Your task to perform on an android device: turn on location history Image 0: 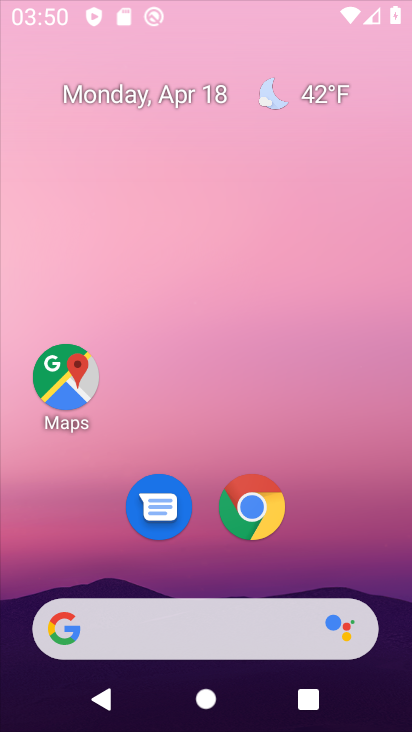
Step 0: click (264, 519)
Your task to perform on an android device: turn on location history Image 1: 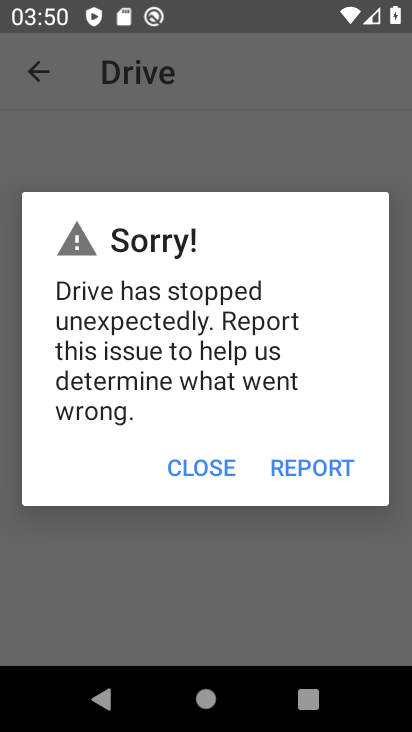
Step 1: press home button
Your task to perform on an android device: turn on location history Image 2: 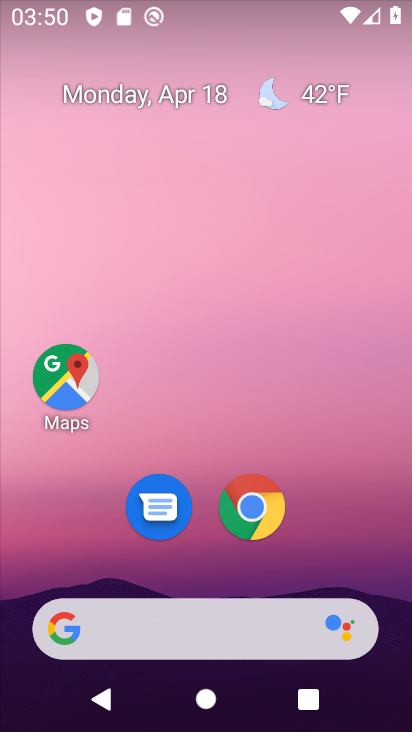
Step 2: drag from (188, 531) to (265, 168)
Your task to perform on an android device: turn on location history Image 3: 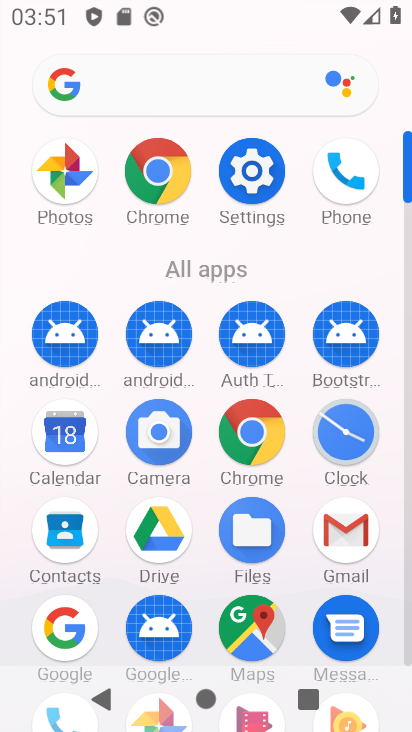
Step 3: drag from (210, 652) to (242, 343)
Your task to perform on an android device: turn on location history Image 4: 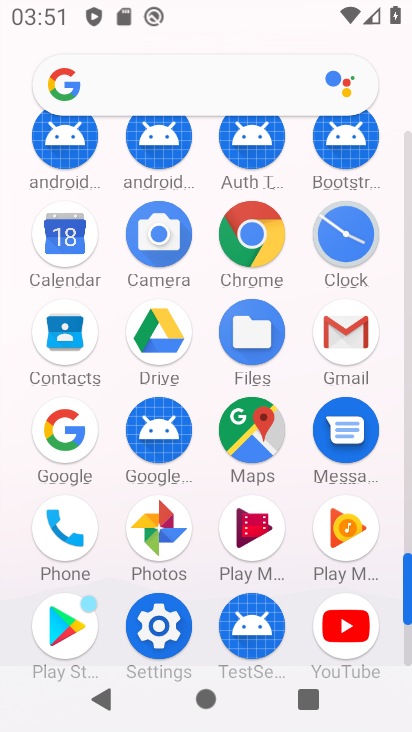
Step 4: drag from (192, 647) to (235, 332)
Your task to perform on an android device: turn on location history Image 5: 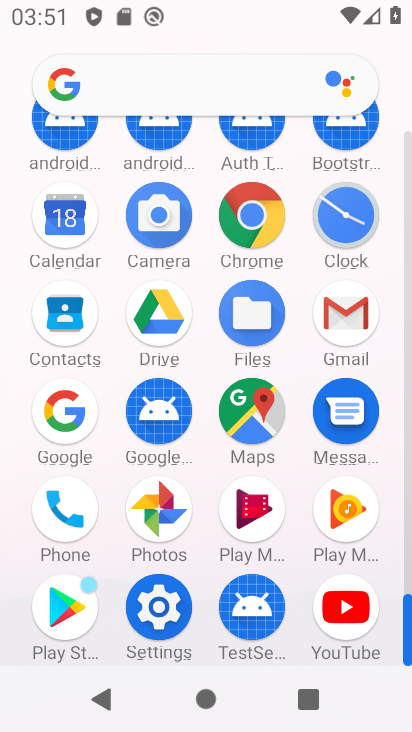
Step 5: drag from (106, 626) to (170, 359)
Your task to perform on an android device: turn on location history Image 6: 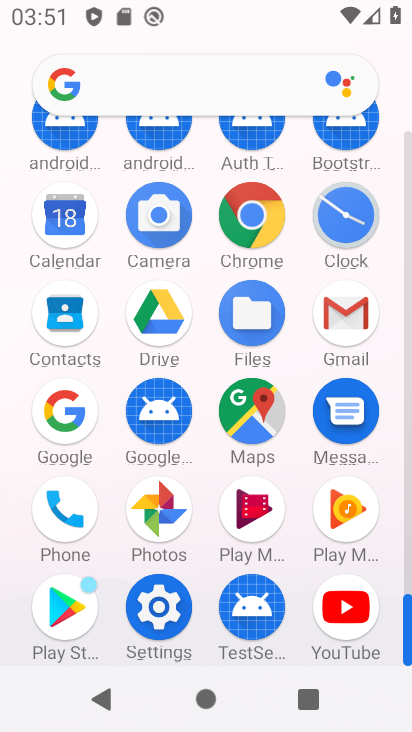
Step 6: click (175, 607)
Your task to perform on an android device: turn on location history Image 7: 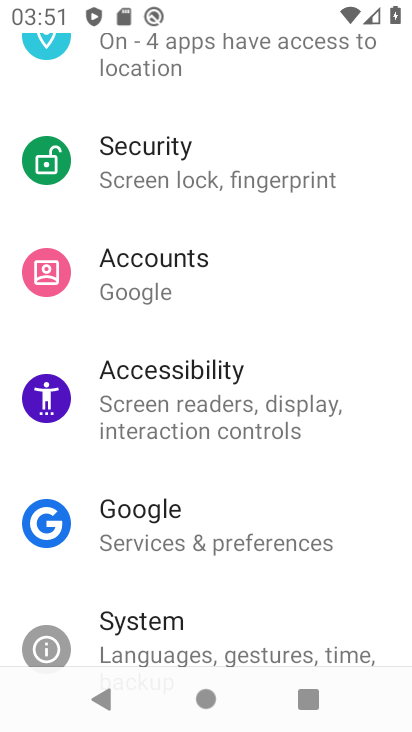
Step 7: drag from (282, 305) to (305, 145)
Your task to perform on an android device: turn on location history Image 8: 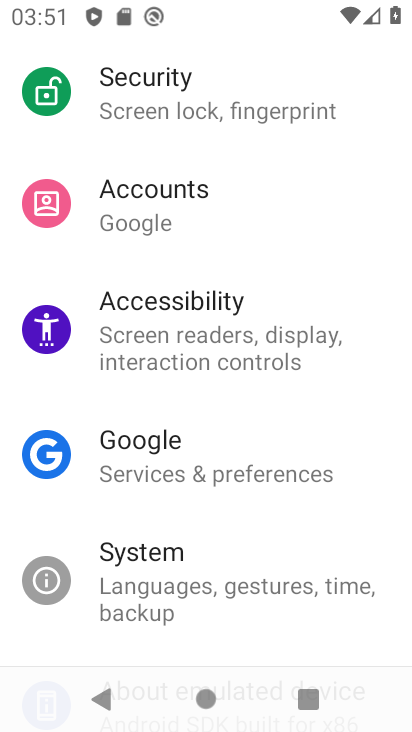
Step 8: drag from (200, 495) to (220, 219)
Your task to perform on an android device: turn on location history Image 9: 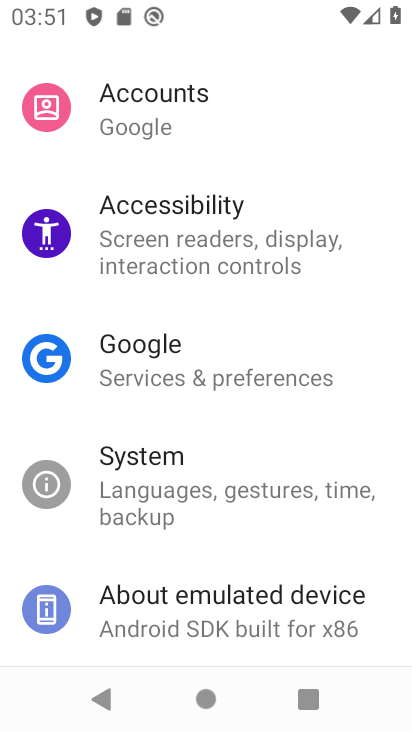
Step 9: drag from (182, 515) to (213, 270)
Your task to perform on an android device: turn on location history Image 10: 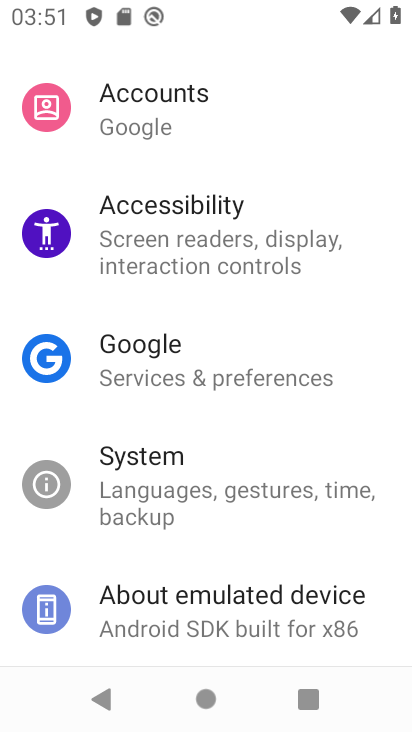
Step 10: drag from (194, 195) to (140, 536)
Your task to perform on an android device: turn on location history Image 11: 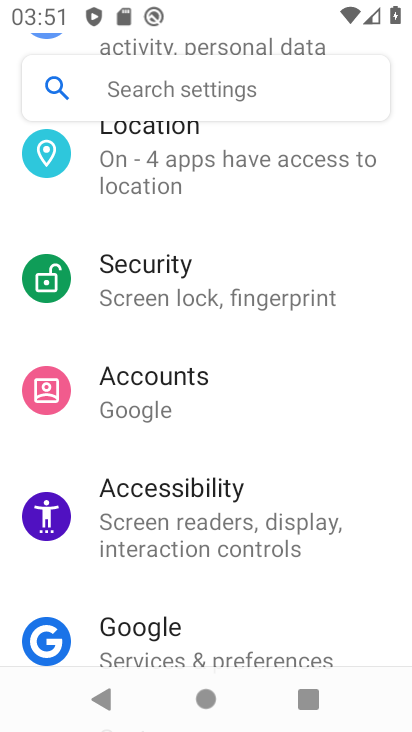
Step 11: drag from (198, 187) to (198, 395)
Your task to perform on an android device: turn on location history Image 12: 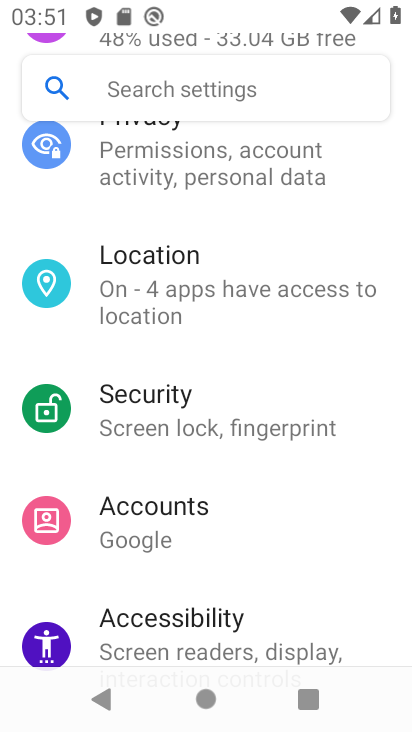
Step 12: click (153, 257)
Your task to perform on an android device: turn on location history Image 13: 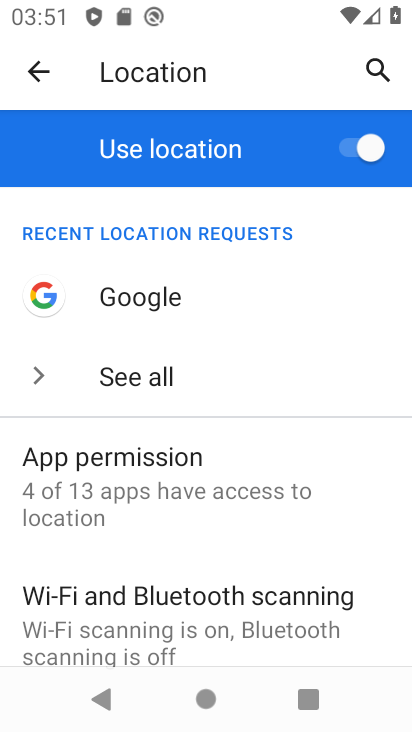
Step 13: drag from (179, 455) to (233, 167)
Your task to perform on an android device: turn on location history Image 14: 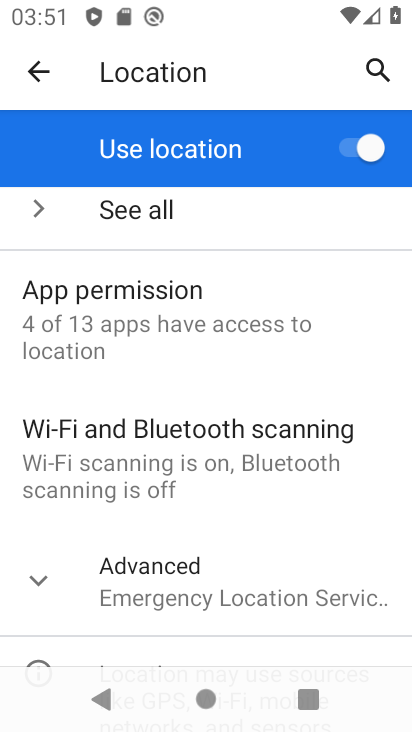
Step 14: drag from (112, 577) to (193, 223)
Your task to perform on an android device: turn on location history Image 15: 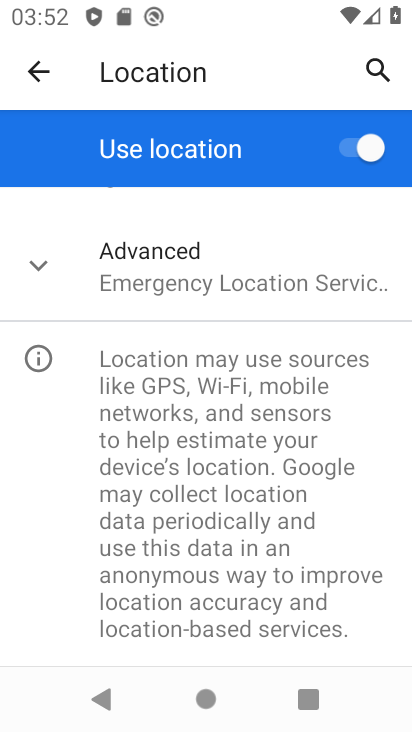
Step 15: click (40, 268)
Your task to perform on an android device: turn on location history Image 16: 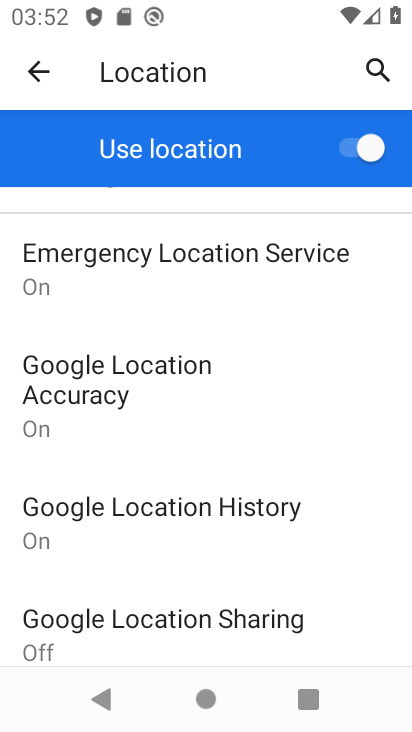
Step 16: click (168, 512)
Your task to perform on an android device: turn on location history Image 17: 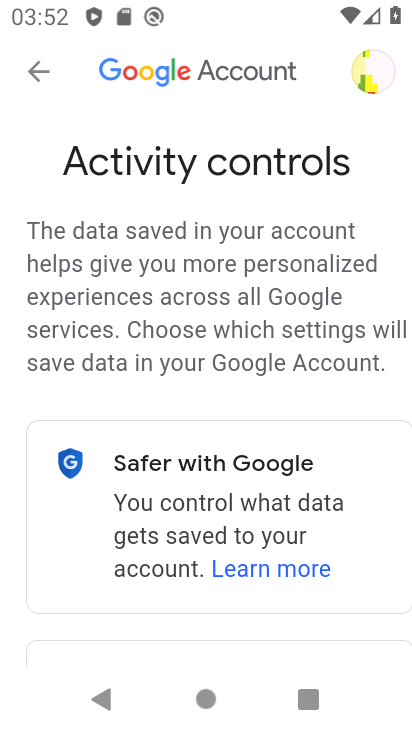
Step 17: drag from (123, 510) to (178, 192)
Your task to perform on an android device: turn on location history Image 18: 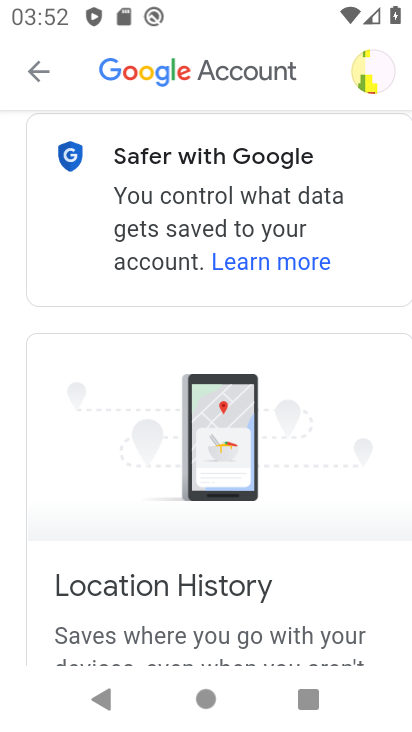
Step 18: drag from (223, 666) to (330, 199)
Your task to perform on an android device: turn on location history Image 19: 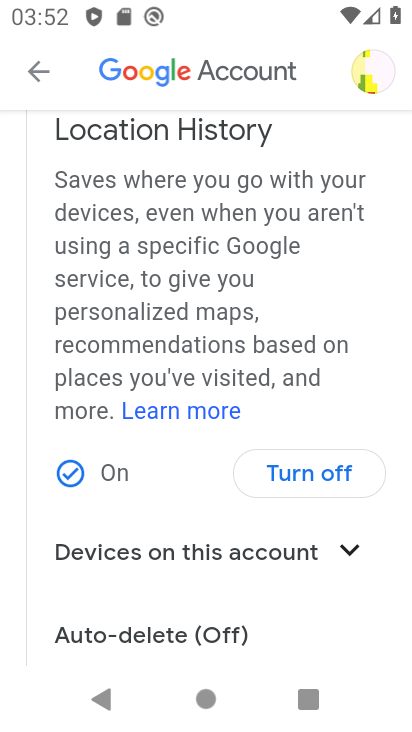
Step 19: click (60, 466)
Your task to perform on an android device: turn on location history Image 20: 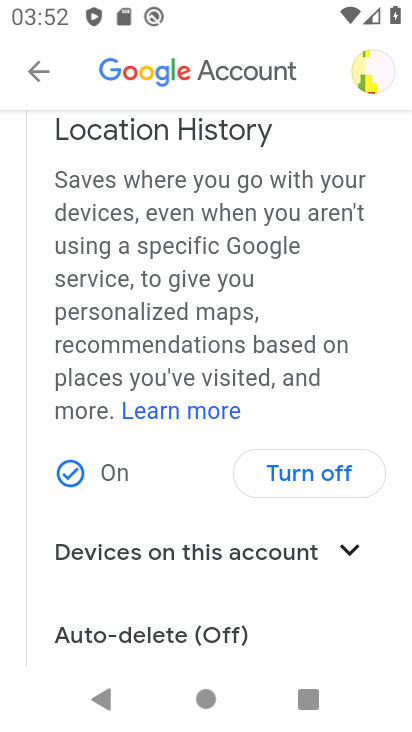
Step 20: task complete